Your task to perform on an android device: Google the capital of Colombia Image 0: 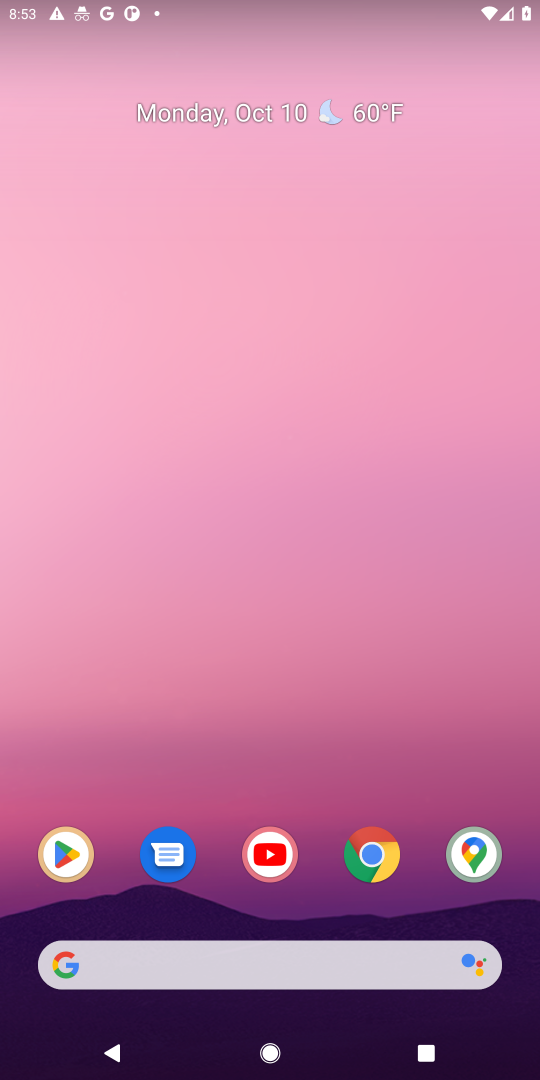
Step 0: click (367, 860)
Your task to perform on an android device: Google the capital of Colombia Image 1: 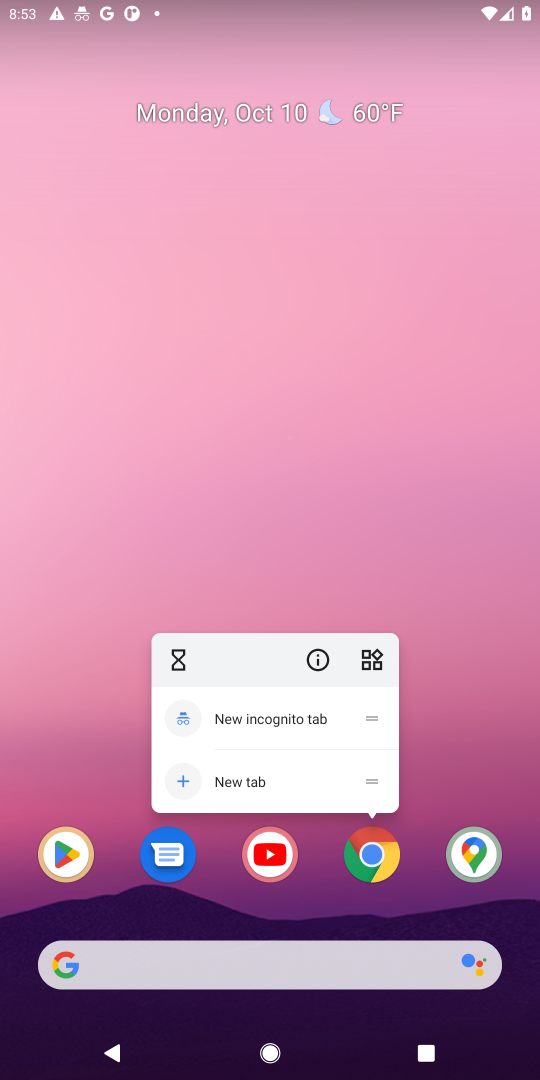
Step 1: click (368, 862)
Your task to perform on an android device: Google the capital of Colombia Image 2: 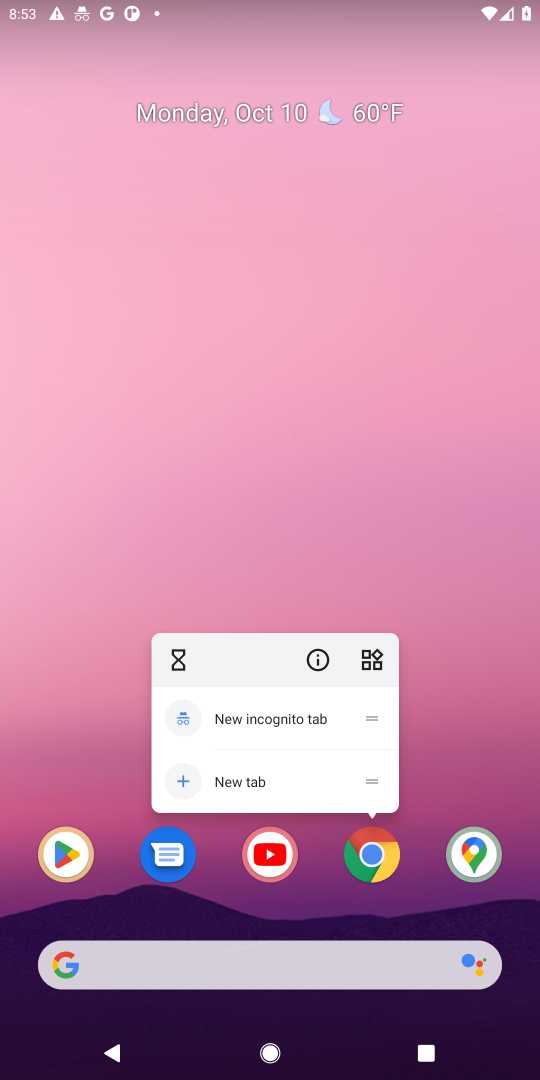
Step 2: click (368, 863)
Your task to perform on an android device: Google the capital of Colombia Image 3: 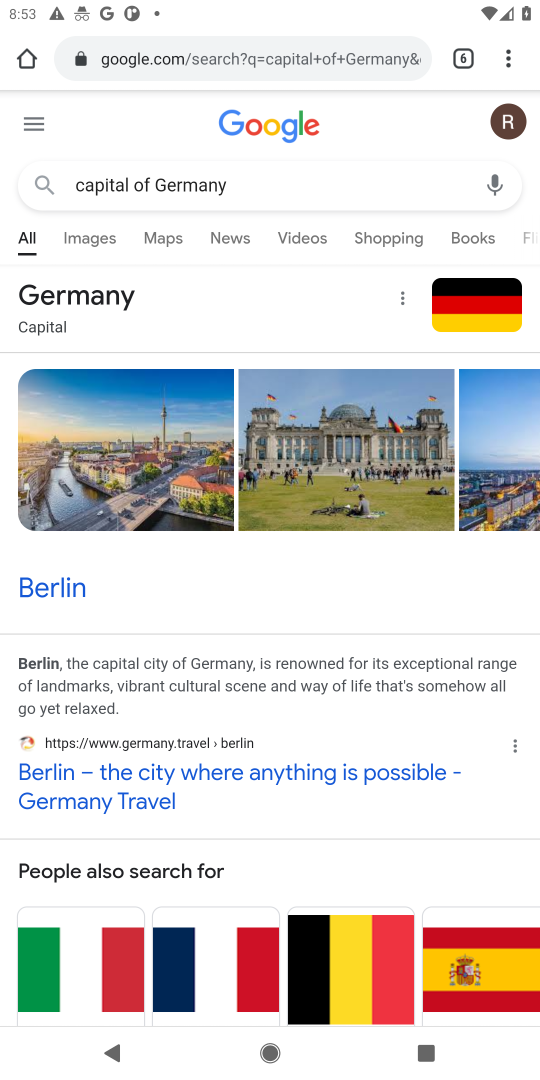
Step 3: click (290, 53)
Your task to perform on an android device: Google the capital of Colombia Image 4: 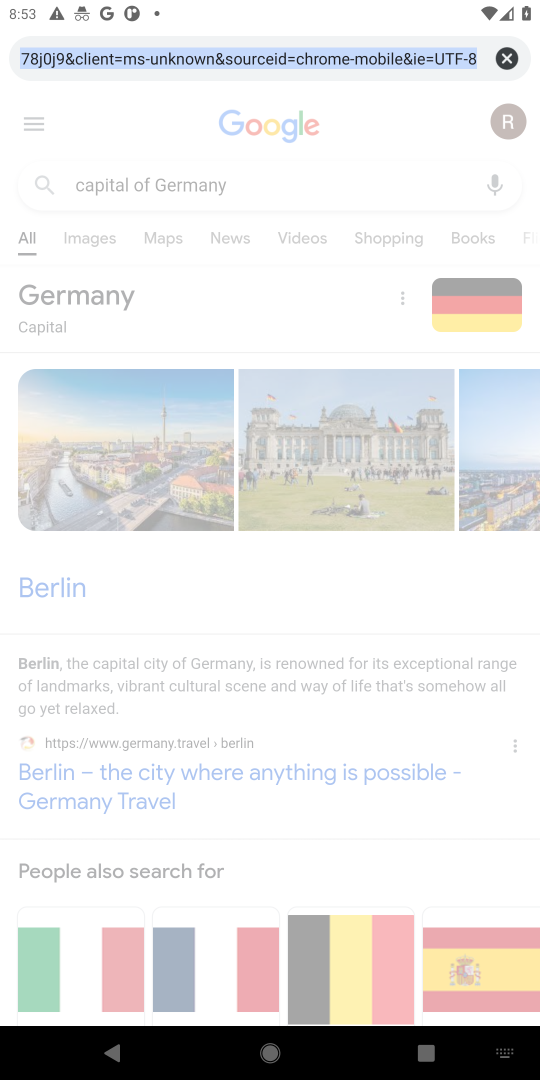
Step 4: click (503, 51)
Your task to perform on an android device: Google the capital of Colombia Image 5: 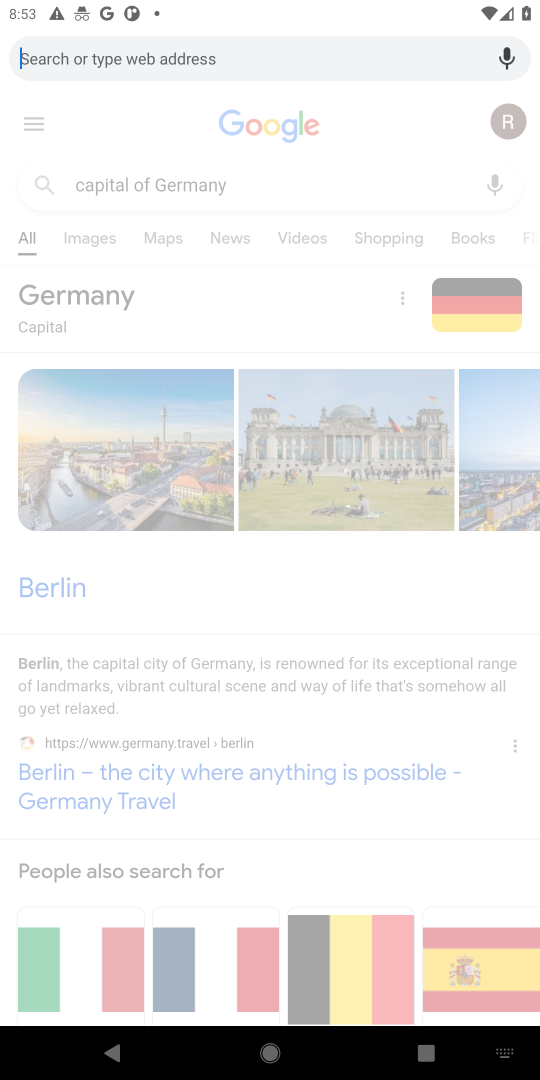
Step 5: type " capital of Colombia"
Your task to perform on an android device: Google the capital of Colombia Image 6: 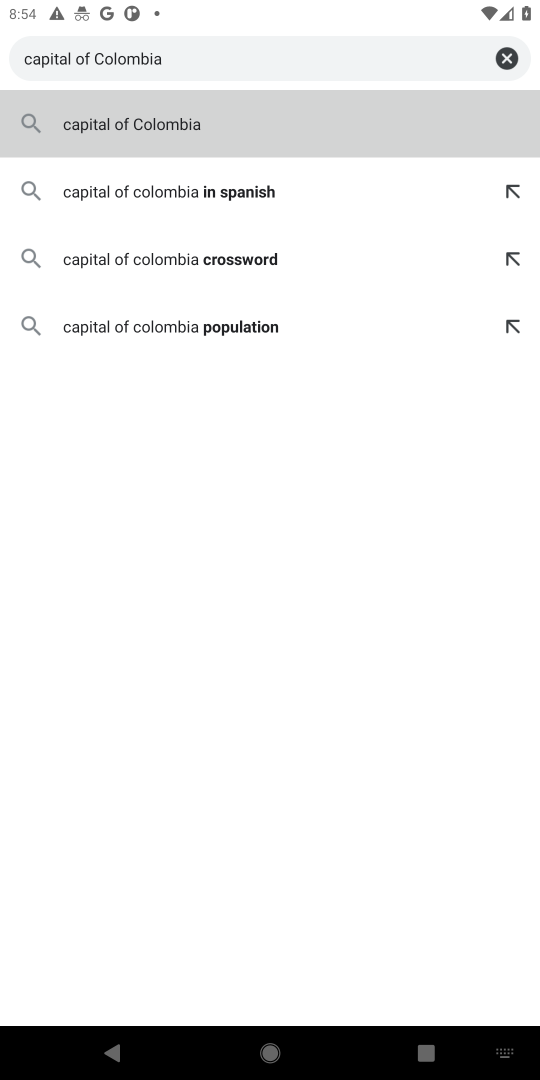
Step 6: press enter
Your task to perform on an android device: Google the capital of Colombia Image 7: 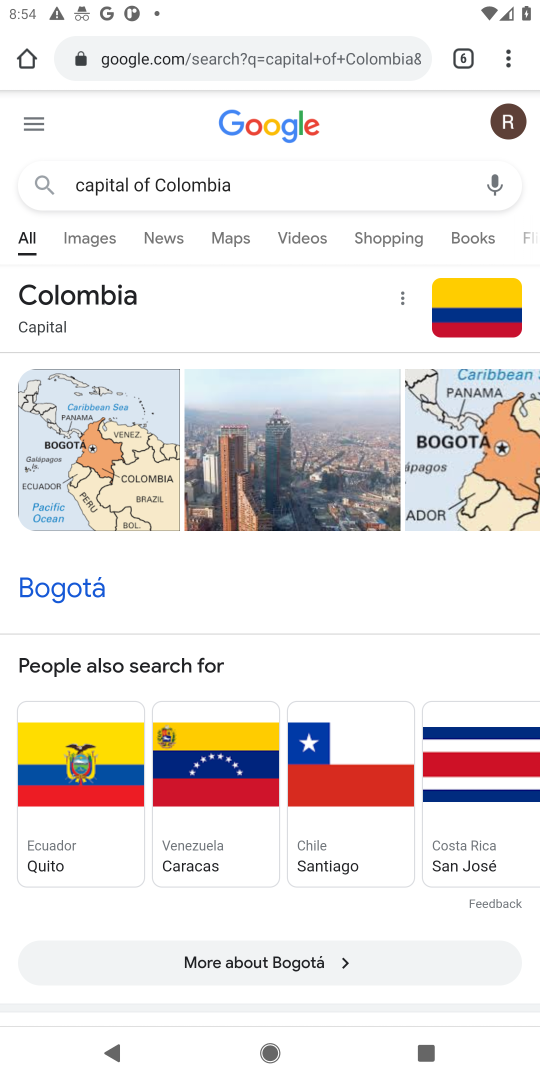
Step 7: task complete